Your task to perform on an android device: change text size in settings app Image 0: 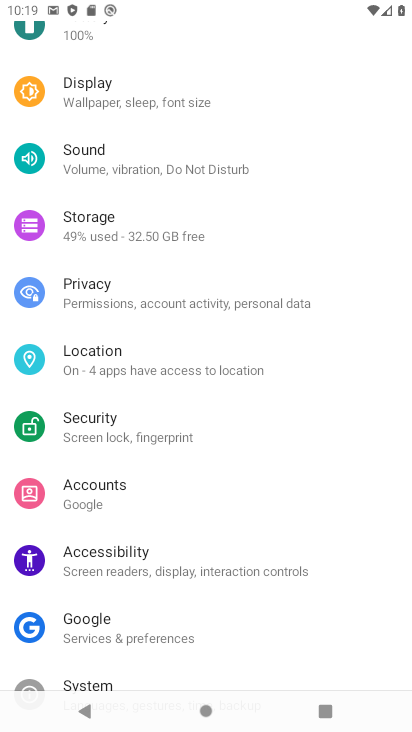
Step 0: press home button
Your task to perform on an android device: change text size in settings app Image 1: 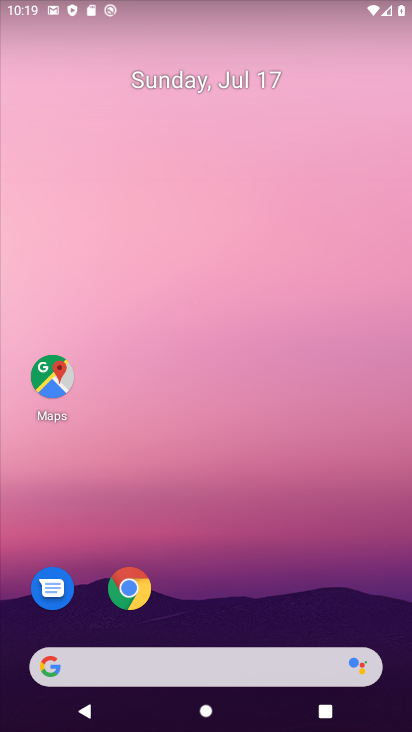
Step 1: drag from (271, 604) to (406, 57)
Your task to perform on an android device: change text size in settings app Image 2: 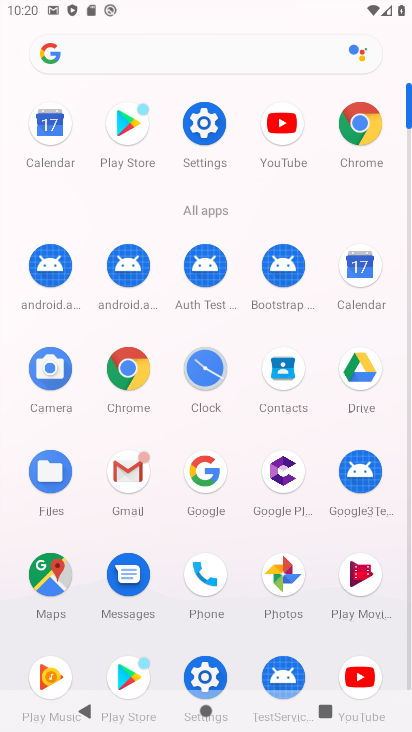
Step 2: click (206, 130)
Your task to perform on an android device: change text size in settings app Image 3: 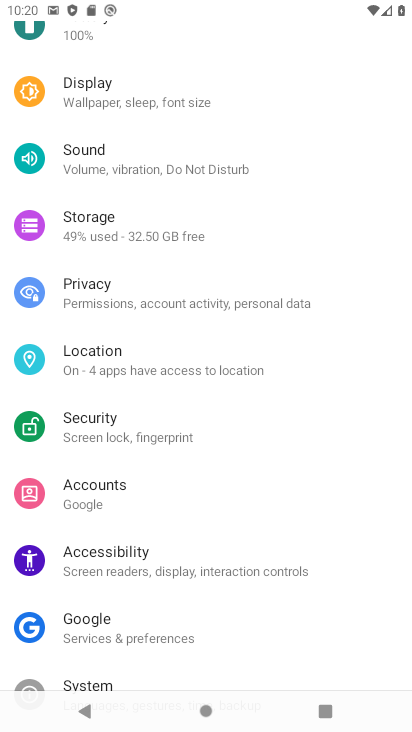
Step 3: click (149, 86)
Your task to perform on an android device: change text size in settings app Image 4: 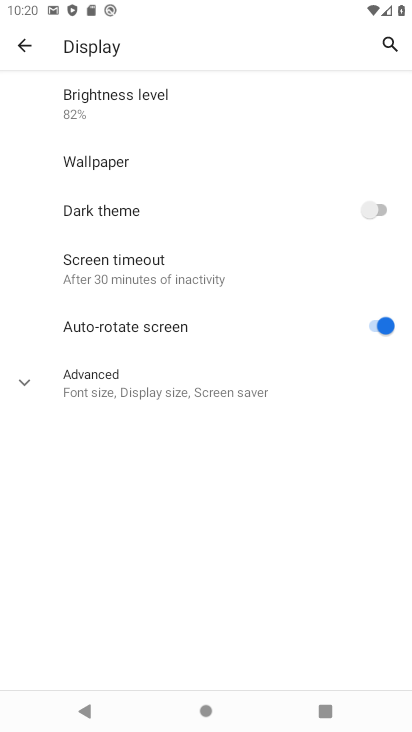
Step 4: click (163, 395)
Your task to perform on an android device: change text size in settings app Image 5: 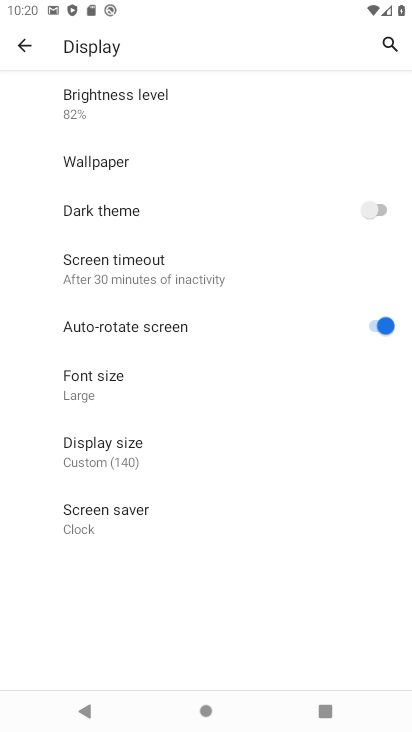
Step 5: click (163, 395)
Your task to perform on an android device: change text size in settings app Image 6: 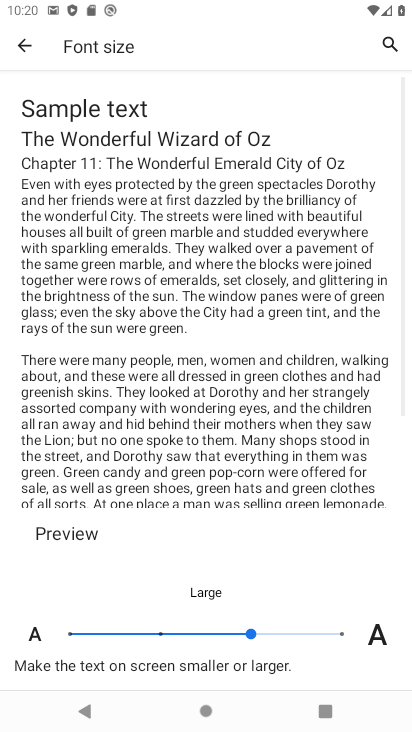
Step 6: click (375, 642)
Your task to perform on an android device: change text size in settings app Image 7: 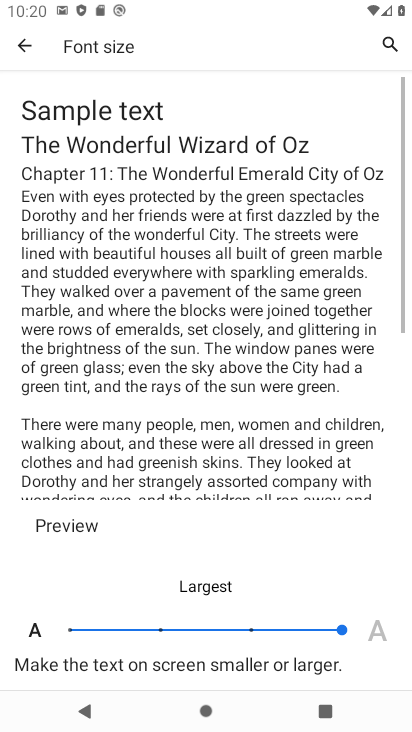
Step 7: task complete